Your task to perform on an android device: Open accessibility settings Image 0: 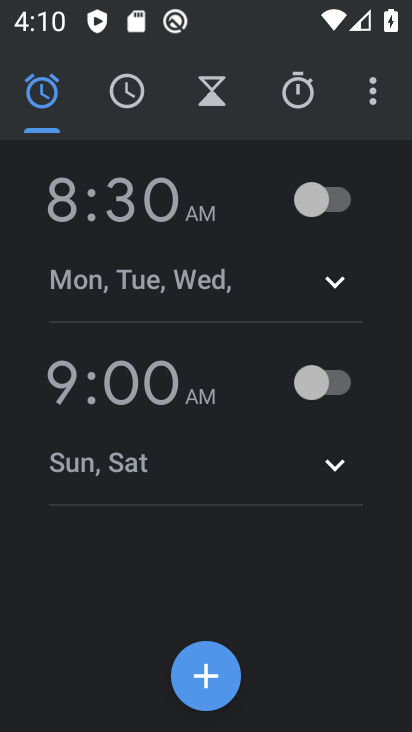
Step 0: press home button
Your task to perform on an android device: Open accessibility settings Image 1: 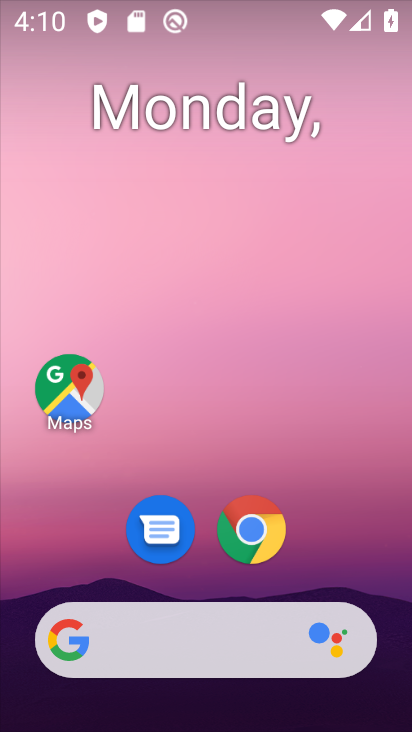
Step 1: drag from (213, 275) to (224, 132)
Your task to perform on an android device: Open accessibility settings Image 2: 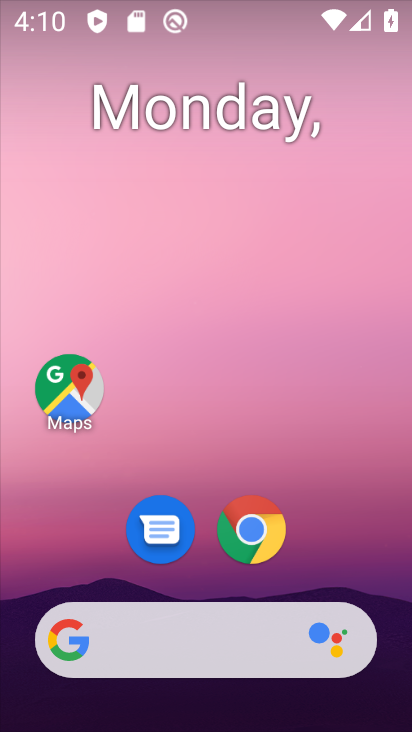
Step 2: drag from (206, 569) to (233, 11)
Your task to perform on an android device: Open accessibility settings Image 3: 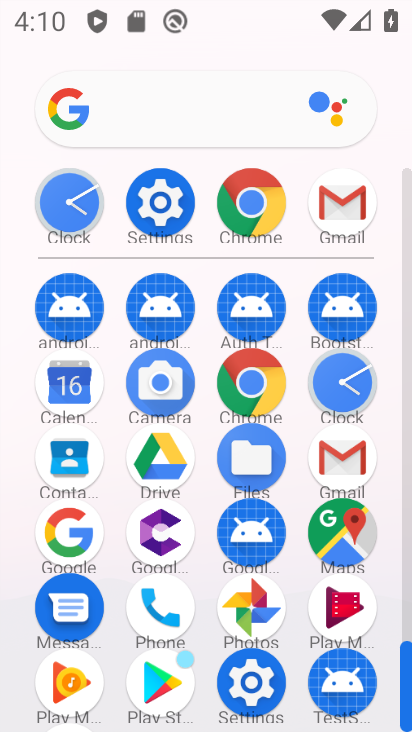
Step 3: click (157, 203)
Your task to perform on an android device: Open accessibility settings Image 4: 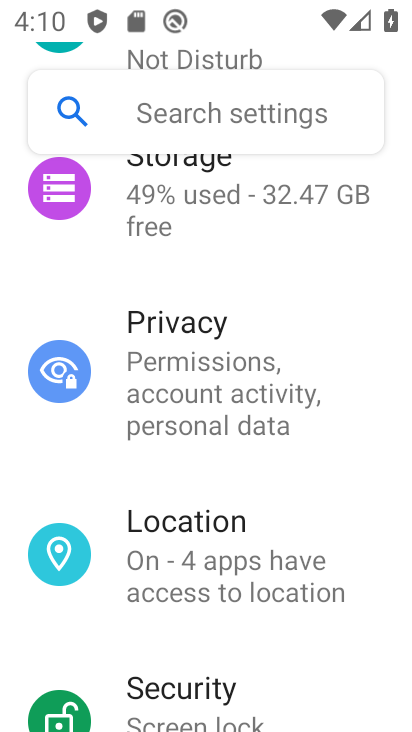
Step 4: drag from (215, 580) to (268, 259)
Your task to perform on an android device: Open accessibility settings Image 5: 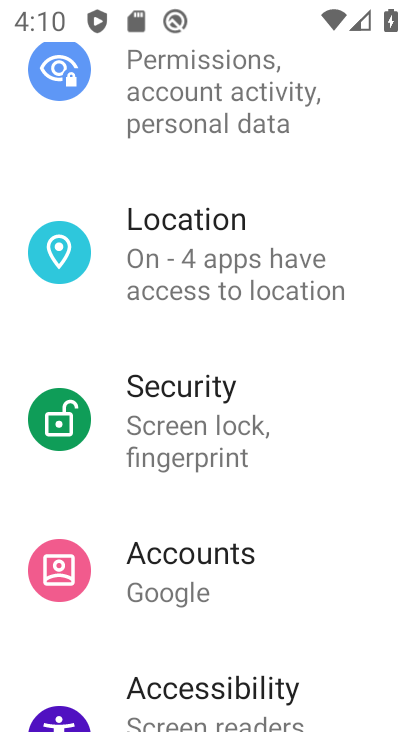
Step 5: click (189, 701)
Your task to perform on an android device: Open accessibility settings Image 6: 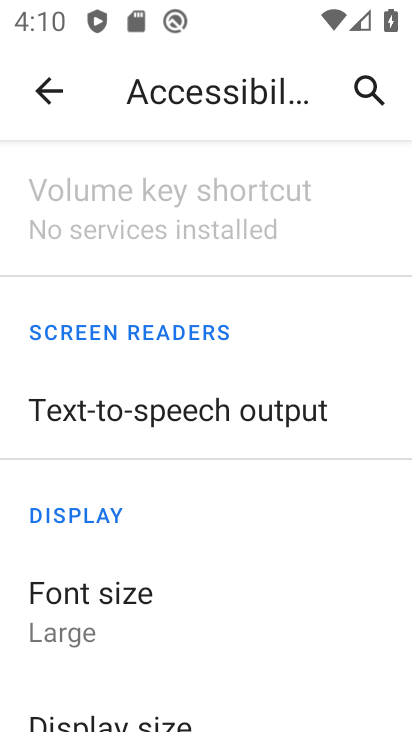
Step 6: task complete